Your task to perform on an android device: change timer sound Image 0: 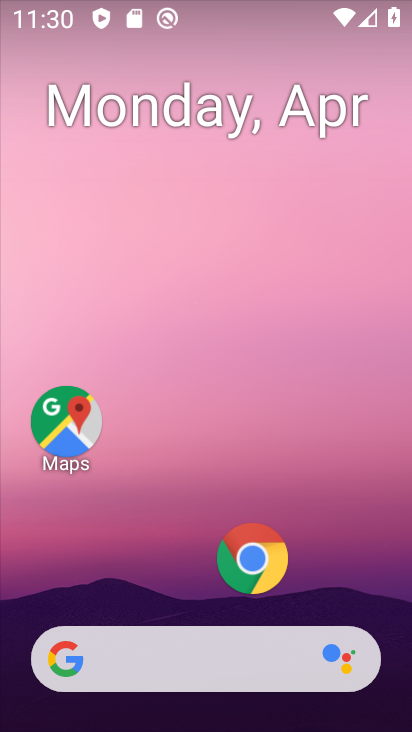
Step 0: drag from (151, 611) to (166, 79)
Your task to perform on an android device: change timer sound Image 1: 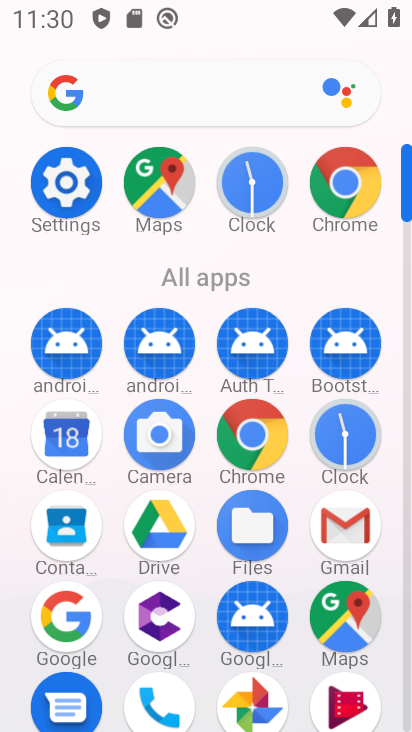
Step 1: click (329, 446)
Your task to perform on an android device: change timer sound Image 2: 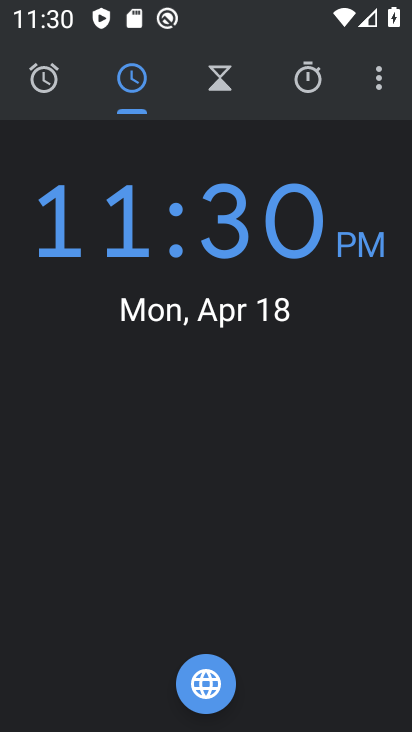
Step 2: click (380, 90)
Your task to perform on an android device: change timer sound Image 3: 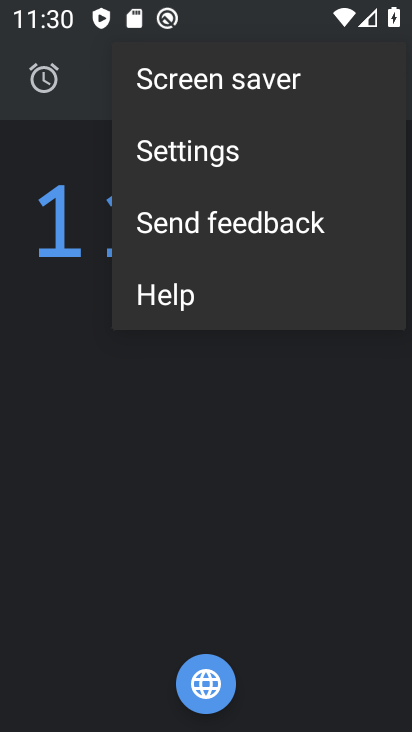
Step 3: click (217, 163)
Your task to perform on an android device: change timer sound Image 4: 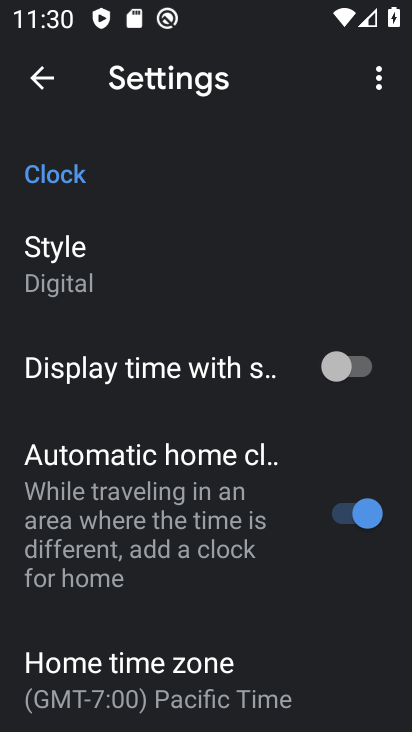
Step 4: drag from (190, 622) to (213, 294)
Your task to perform on an android device: change timer sound Image 5: 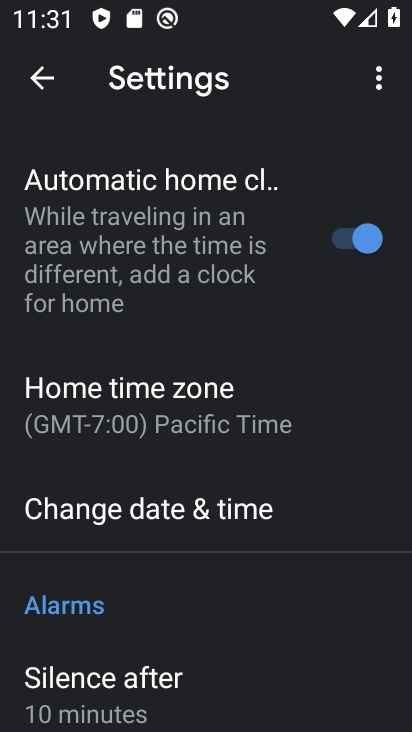
Step 5: drag from (145, 481) to (162, 267)
Your task to perform on an android device: change timer sound Image 6: 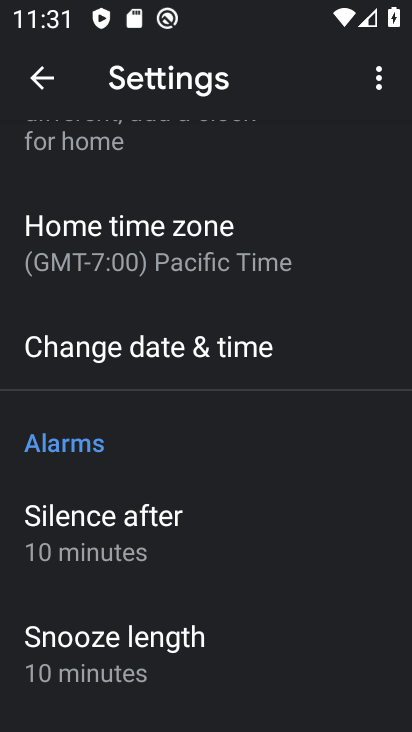
Step 6: drag from (138, 540) to (168, 257)
Your task to perform on an android device: change timer sound Image 7: 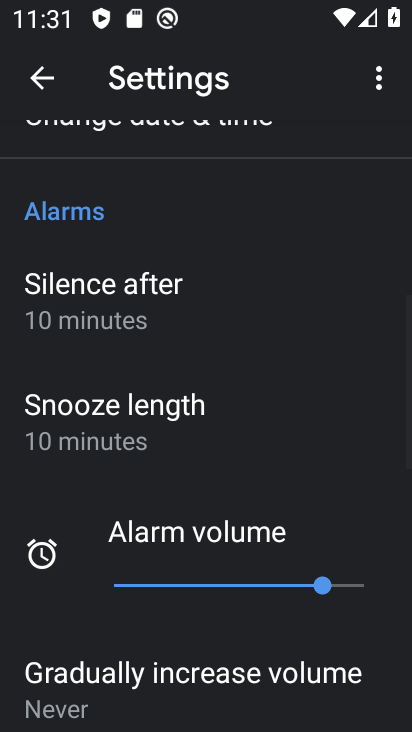
Step 7: drag from (180, 586) to (202, 414)
Your task to perform on an android device: change timer sound Image 8: 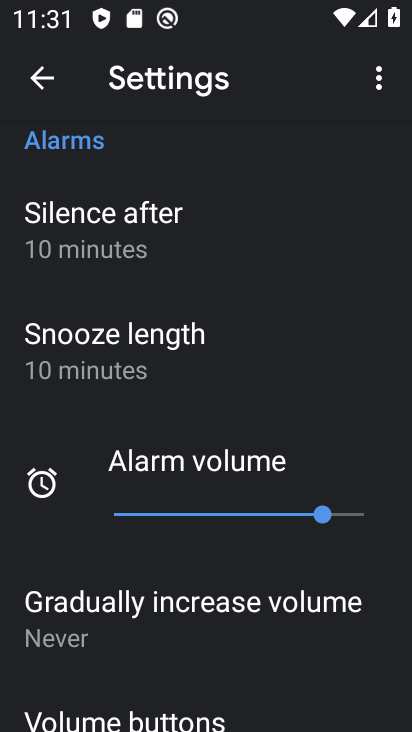
Step 8: drag from (185, 648) to (271, 234)
Your task to perform on an android device: change timer sound Image 9: 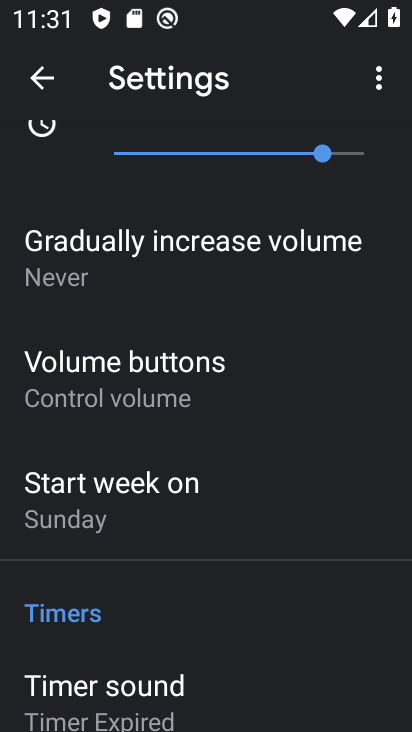
Step 9: click (152, 693)
Your task to perform on an android device: change timer sound Image 10: 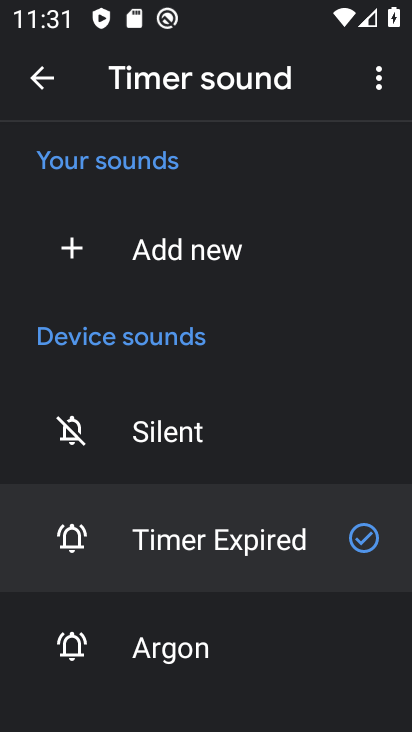
Step 10: click (154, 646)
Your task to perform on an android device: change timer sound Image 11: 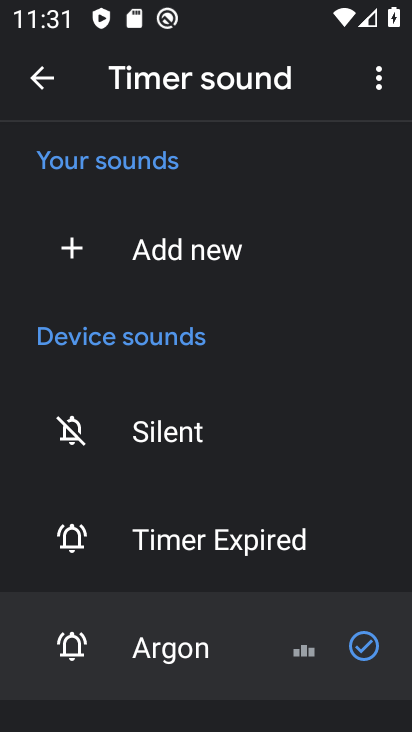
Step 11: task complete